Your task to perform on an android device: turn pop-ups on in chrome Image 0: 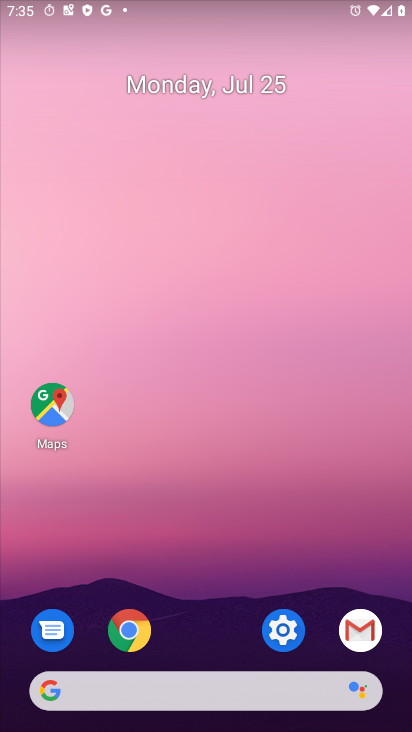
Step 0: click (138, 631)
Your task to perform on an android device: turn pop-ups on in chrome Image 1: 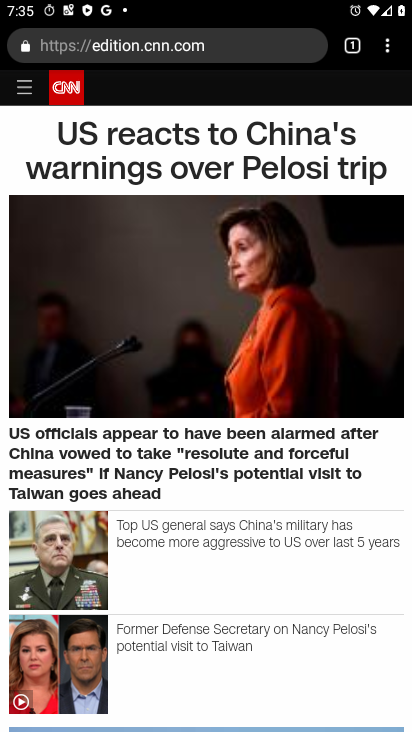
Step 1: click (386, 52)
Your task to perform on an android device: turn pop-ups on in chrome Image 2: 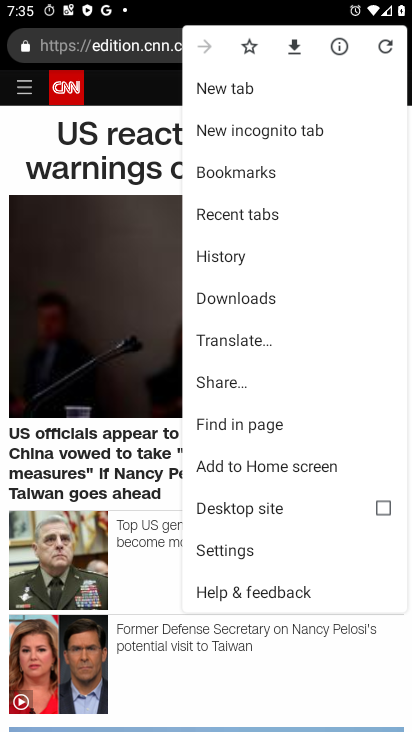
Step 2: click (240, 556)
Your task to perform on an android device: turn pop-ups on in chrome Image 3: 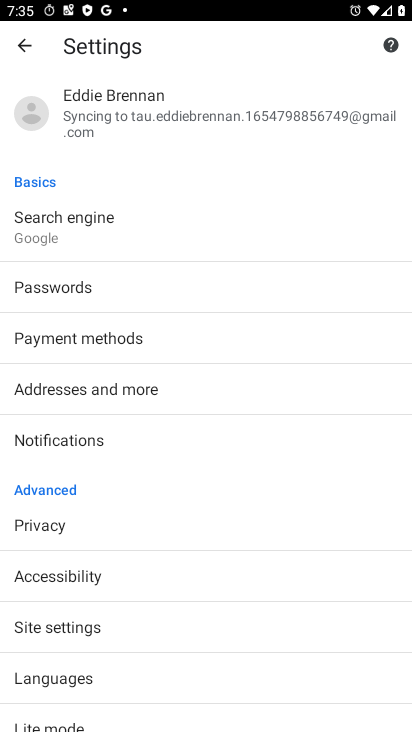
Step 3: click (45, 627)
Your task to perform on an android device: turn pop-ups on in chrome Image 4: 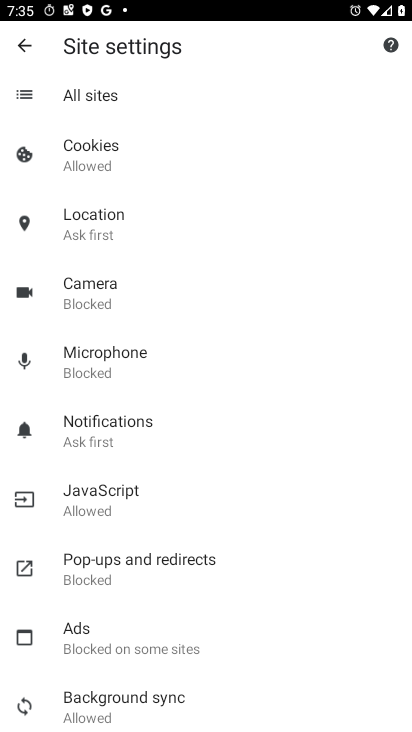
Step 4: click (127, 555)
Your task to perform on an android device: turn pop-ups on in chrome Image 5: 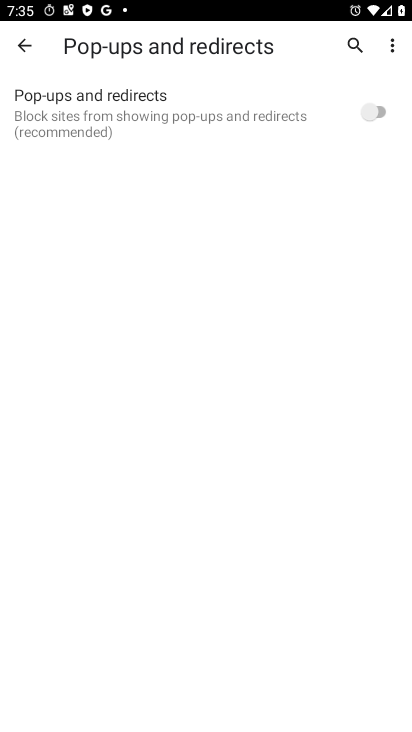
Step 5: click (370, 118)
Your task to perform on an android device: turn pop-ups on in chrome Image 6: 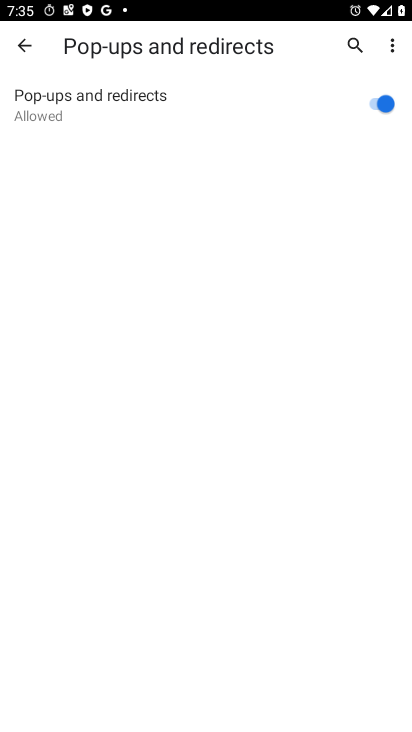
Step 6: task complete